Your task to perform on an android device: Open ESPN.com Image 0: 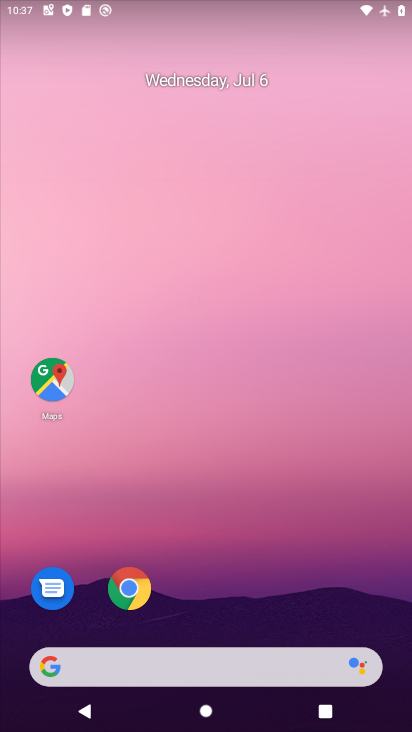
Step 0: drag from (186, 596) to (213, 269)
Your task to perform on an android device: Open ESPN.com Image 1: 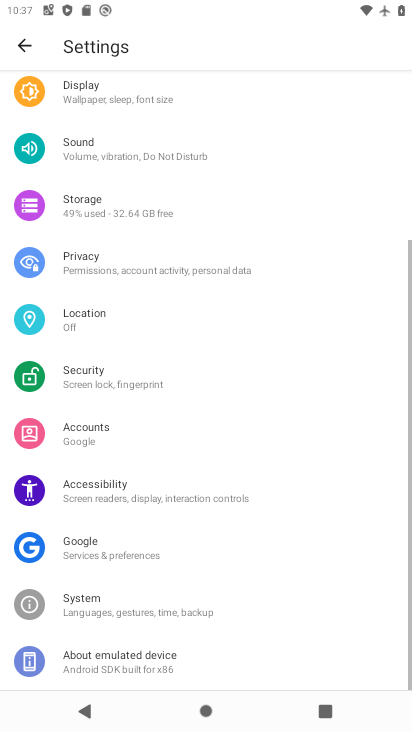
Step 1: press home button
Your task to perform on an android device: Open ESPN.com Image 2: 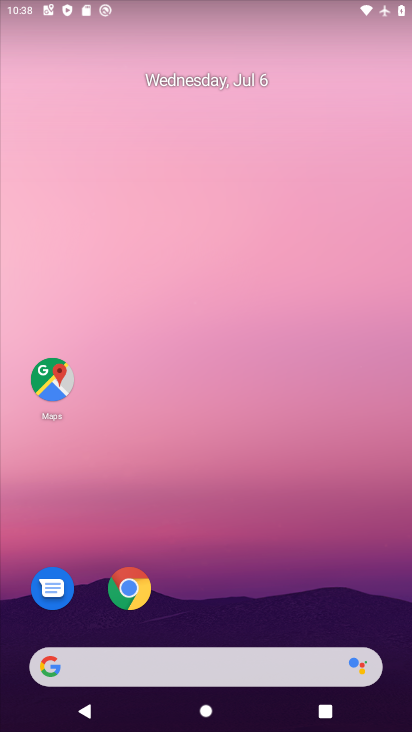
Step 2: drag from (215, 612) to (215, 317)
Your task to perform on an android device: Open ESPN.com Image 3: 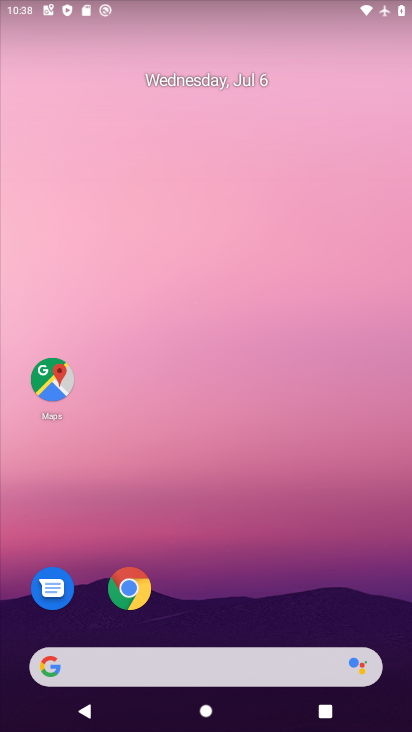
Step 3: drag from (248, 595) to (253, 139)
Your task to perform on an android device: Open ESPN.com Image 4: 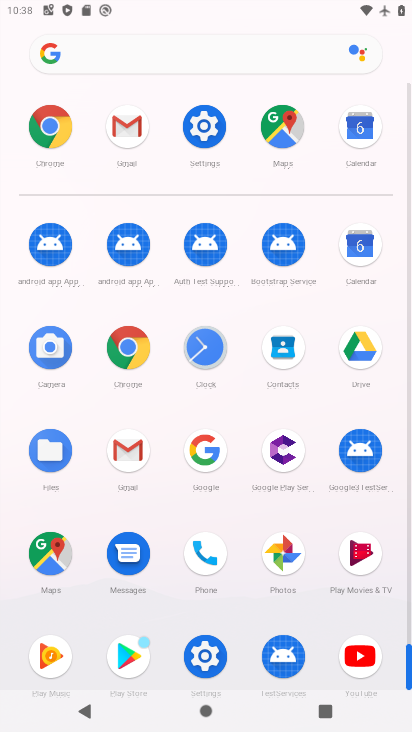
Step 4: click (130, 335)
Your task to perform on an android device: Open ESPN.com Image 5: 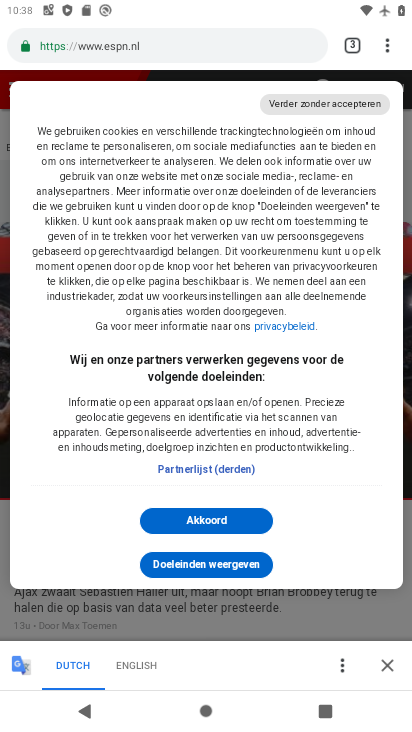
Step 5: click (309, 610)
Your task to perform on an android device: Open ESPN.com Image 6: 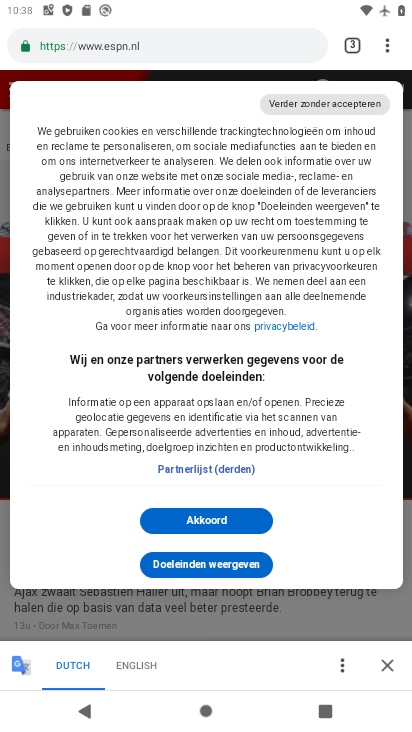
Step 6: click (378, 658)
Your task to perform on an android device: Open ESPN.com Image 7: 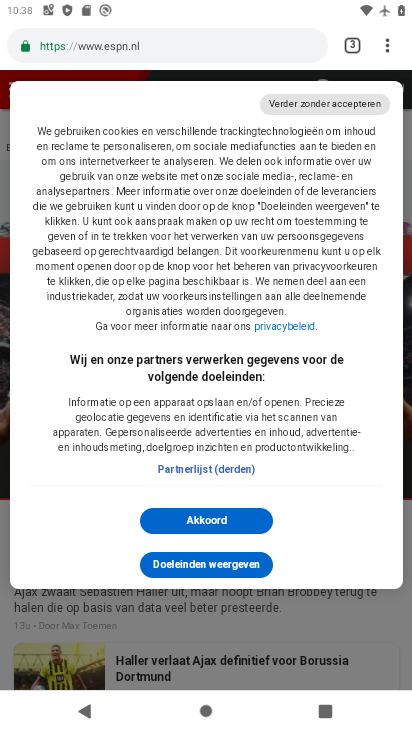
Step 7: click (223, 519)
Your task to perform on an android device: Open ESPN.com Image 8: 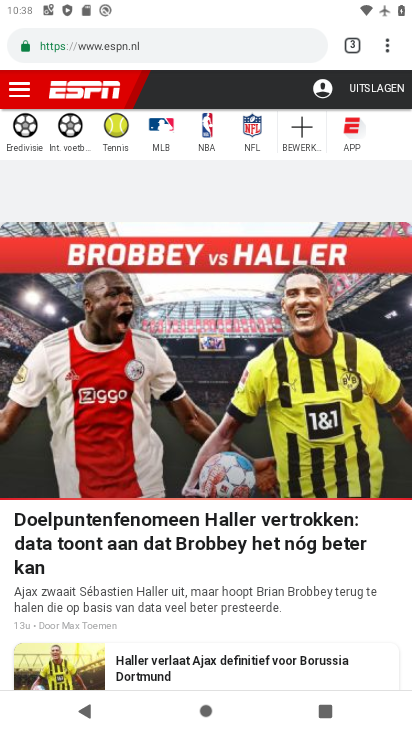
Step 8: click (223, 513)
Your task to perform on an android device: Open ESPN.com Image 9: 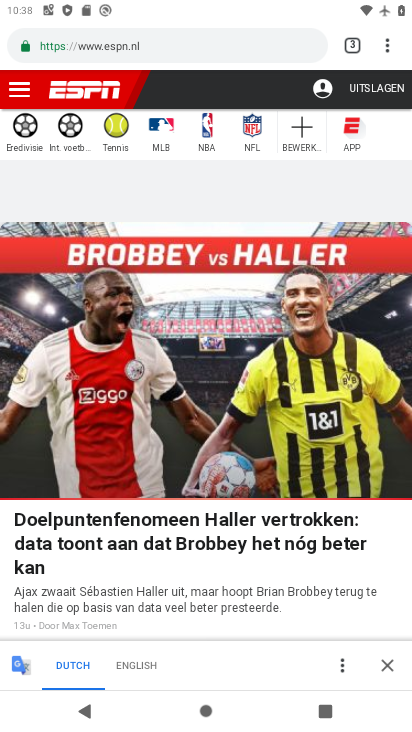
Step 9: task complete